Your task to perform on an android device: Is it going to rain this weekend? Image 0: 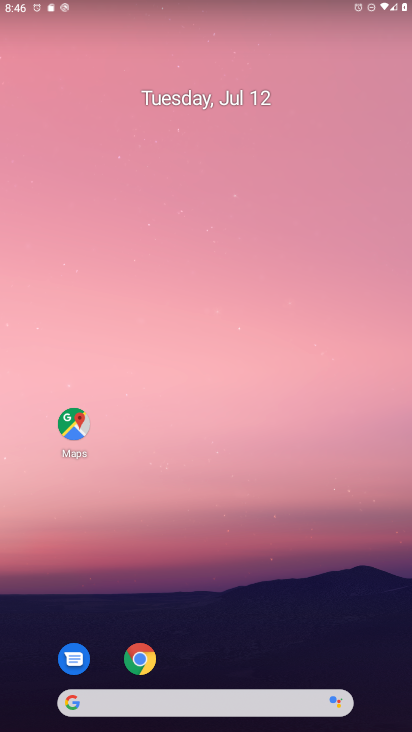
Step 0: drag from (197, 702) to (240, 106)
Your task to perform on an android device: Is it going to rain this weekend? Image 1: 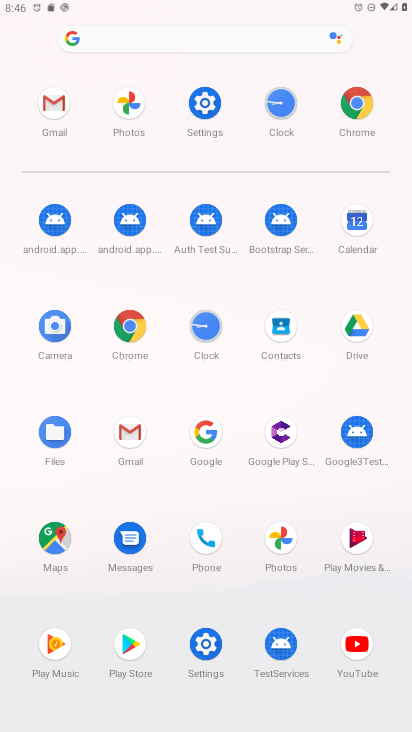
Step 1: click (205, 432)
Your task to perform on an android device: Is it going to rain this weekend? Image 2: 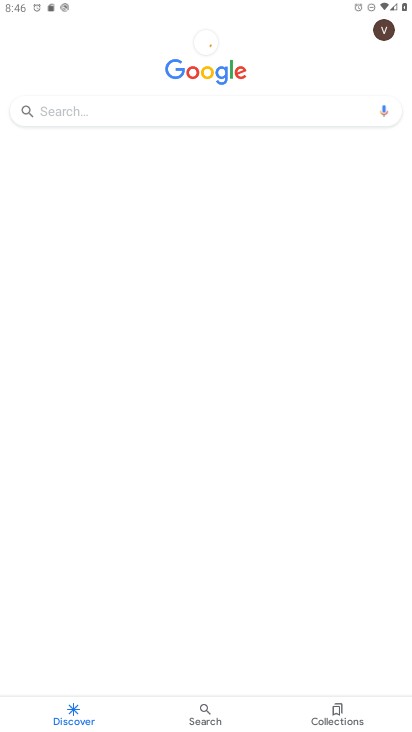
Step 2: click (222, 106)
Your task to perform on an android device: Is it going to rain this weekend? Image 3: 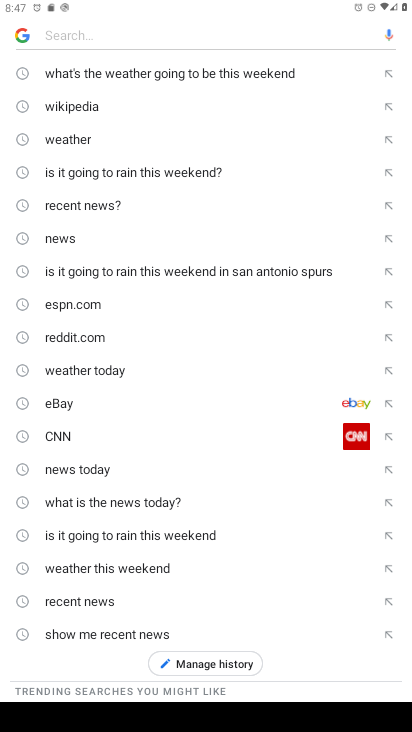
Step 3: type "Is it going to rain this weekend?"
Your task to perform on an android device: Is it going to rain this weekend? Image 4: 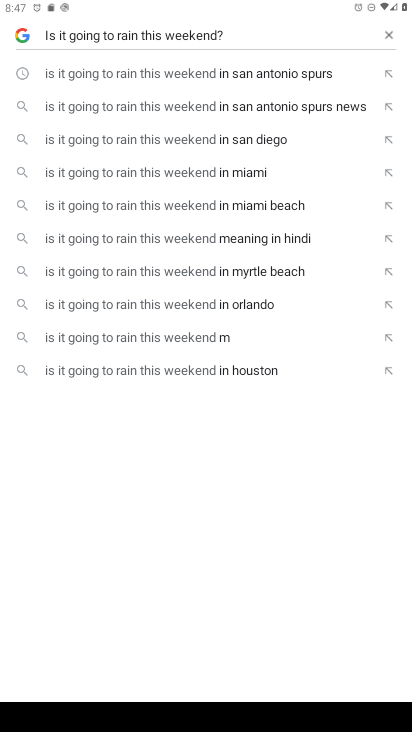
Step 4: click (223, 74)
Your task to perform on an android device: Is it going to rain this weekend? Image 5: 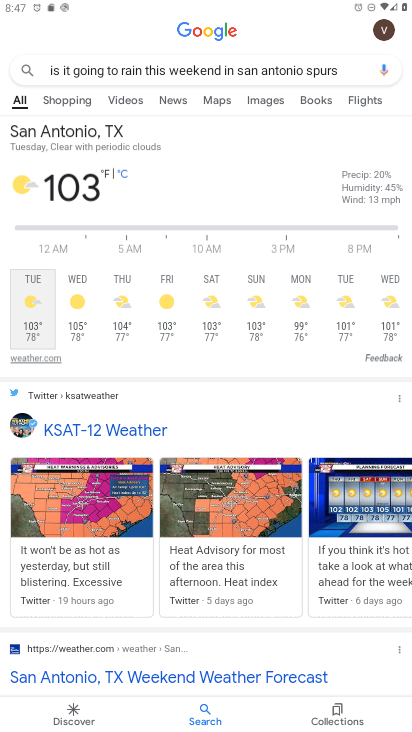
Step 5: task complete